Your task to perform on an android device: refresh tabs in the chrome app Image 0: 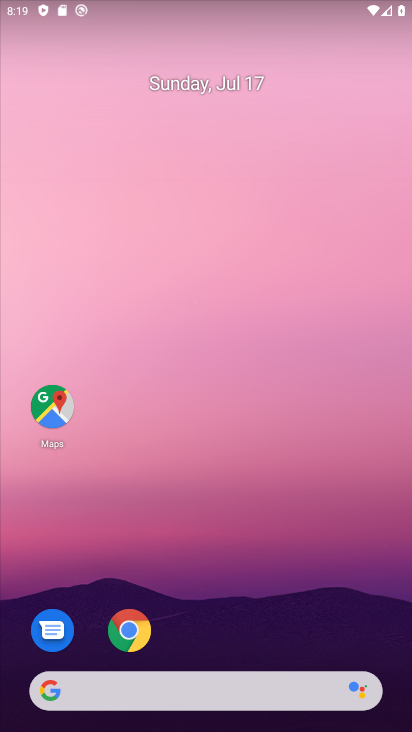
Step 0: click (137, 636)
Your task to perform on an android device: refresh tabs in the chrome app Image 1: 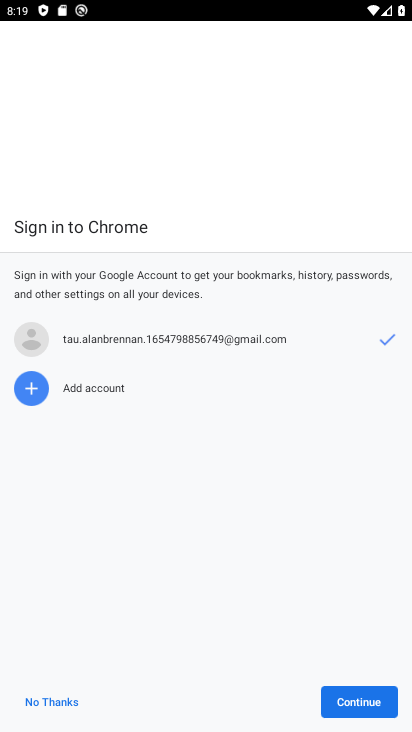
Step 1: click (350, 692)
Your task to perform on an android device: refresh tabs in the chrome app Image 2: 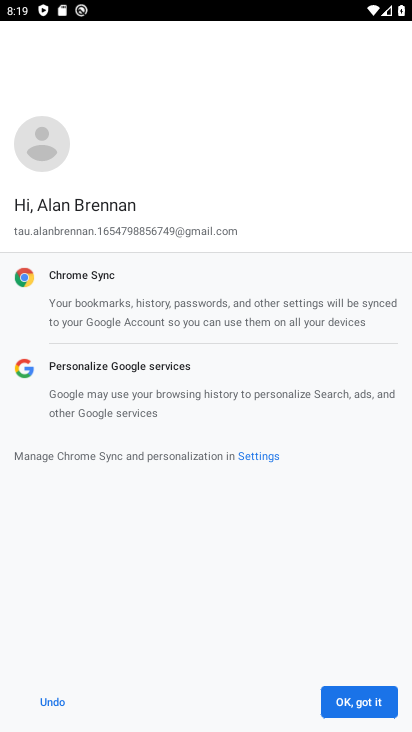
Step 2: click (350, 694)
Your task to perform on an android device: refresh tabs in the chrome app Image 3: 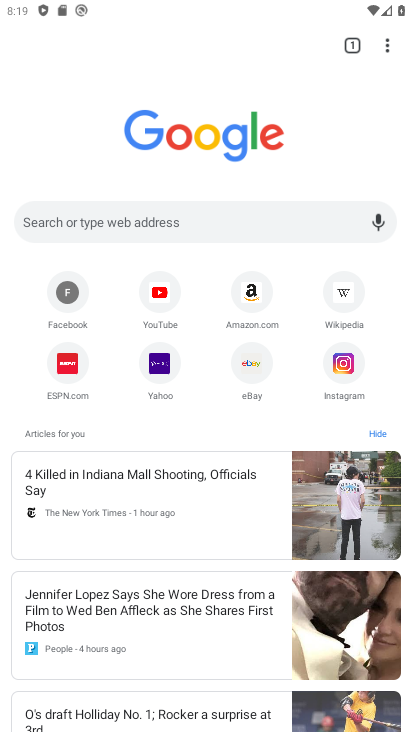
Step 3: click (380, 50)
Your task to perform on an android device: refresh tabs in the chrome app Image 4: 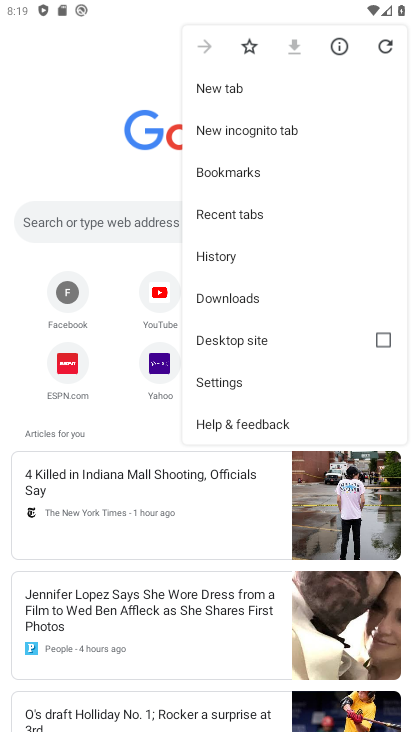
Step 4: click (383, 53)
Your task to perform on an android device: refresh tabs in the chrome app Image 5: 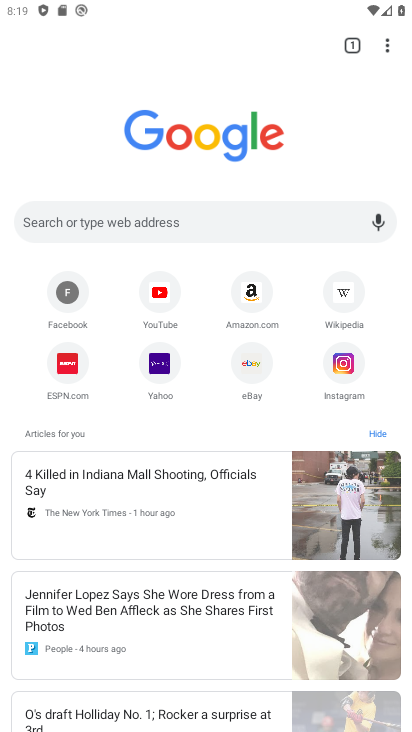
Step 5: task complete